Your task to perform on an android device: add a contact in the contacts app Image 0: 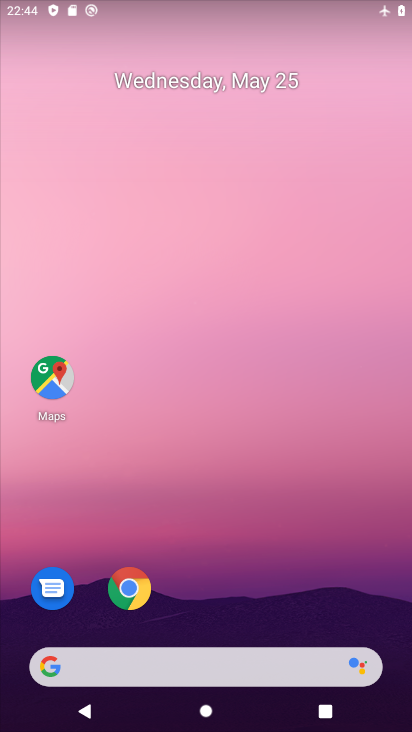
Step 0: drag from (221, 559) to (251, 146)
Your task to perform on an android device: add a contact in the contacts app Image 1: 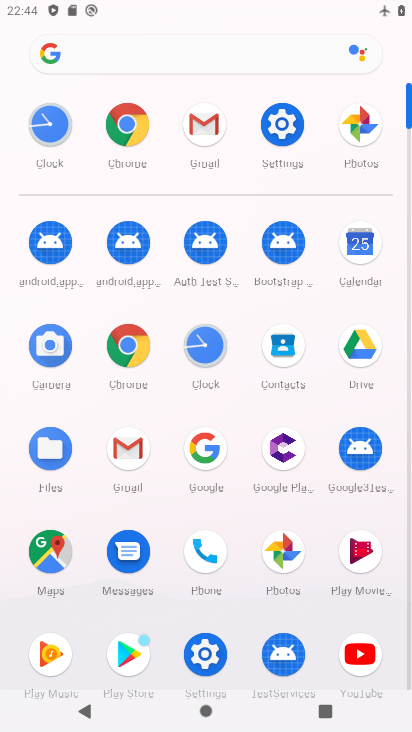
Step 1: click (290, 343)
Your task to perform on an android device: add a contact in the contacts app Image 2: 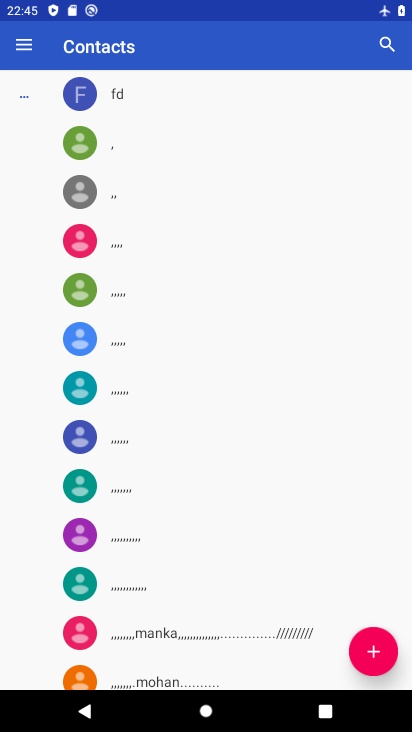
Step 2: click (382, 636)
Your task to perform on an android device: add a contact in the contacts app Image 3: 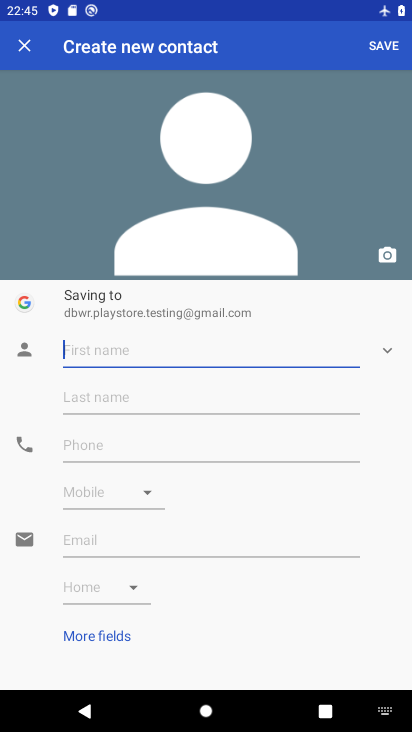
Step 3: type "heven"
Your task to perform on an android device: add a contact in the contacts app Image 4: 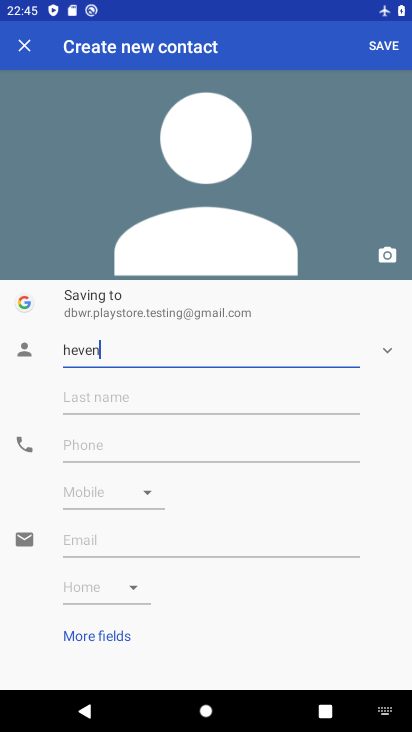
Step 4: click (379, 51)
Your task to perform on an android device: add a contact in the contacts app Image 5: 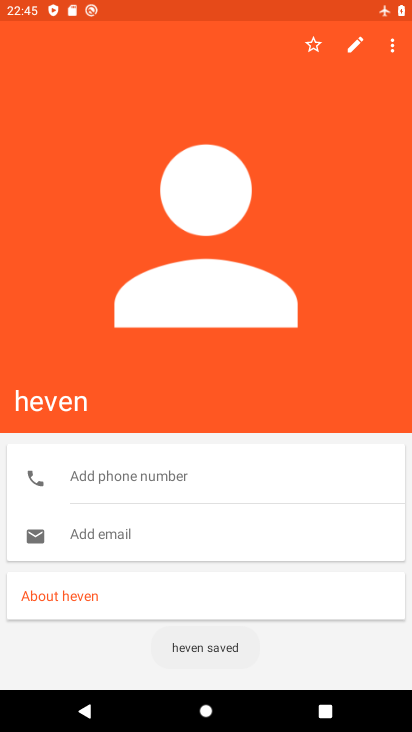
Step 5: task complete